Your task to perform on an android device: Search for pizza restaurants on Maps Image 0: 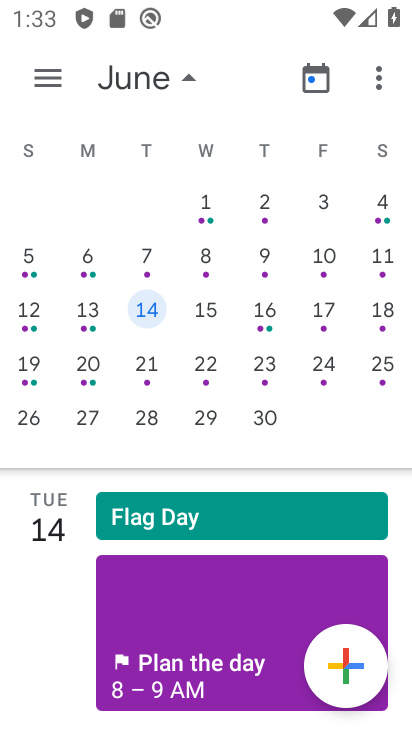
Step 0: press home button
Your task to perform on an android device: Search for pizza restaurants on Maps Image 1: 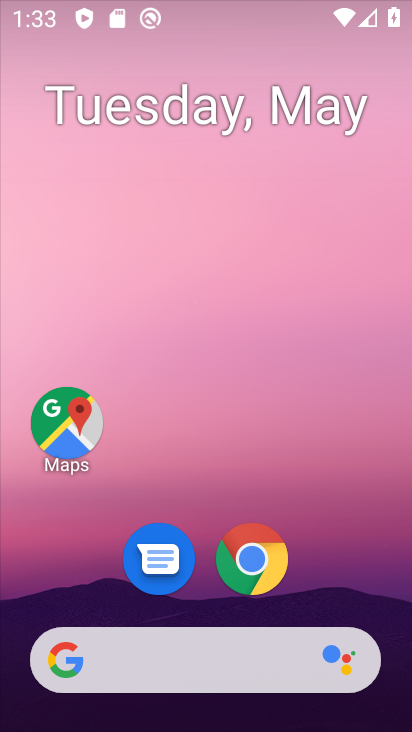
Step 1: drag from (402, 659) to (234, 80)
Your task to perform on an android device: Search for pizza restaurants on Maps Image 2: 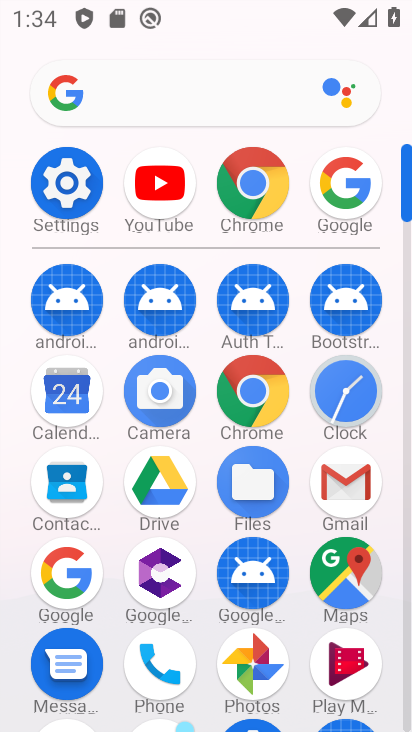
Step 2: click (348, 566)
Your task to perform on an android device: Search for pizza restaurants on Maps Image 3: 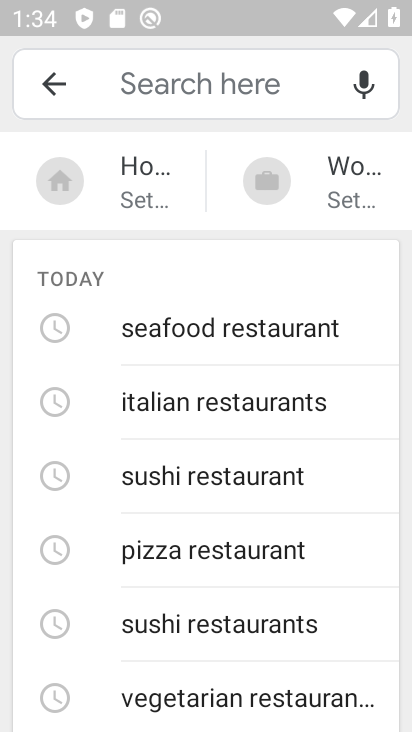
Step 3: click (186, 546)
Your task to perform on an android device: Search for pizza restaurants on Maps Image 4: 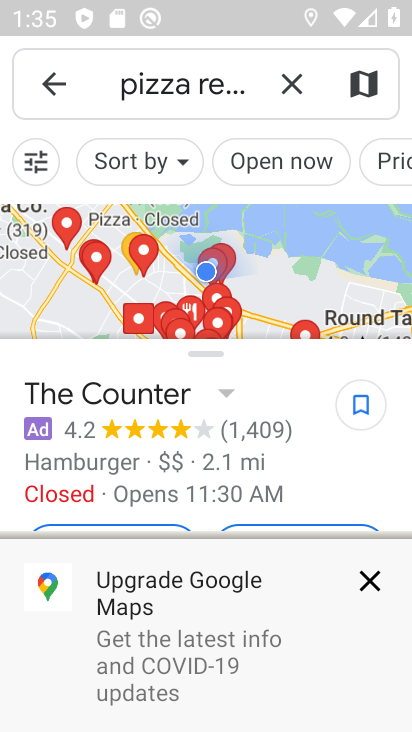
Step 4: task complete